Your task to perform on an android device: turn on translation in the chrome app Image 0: 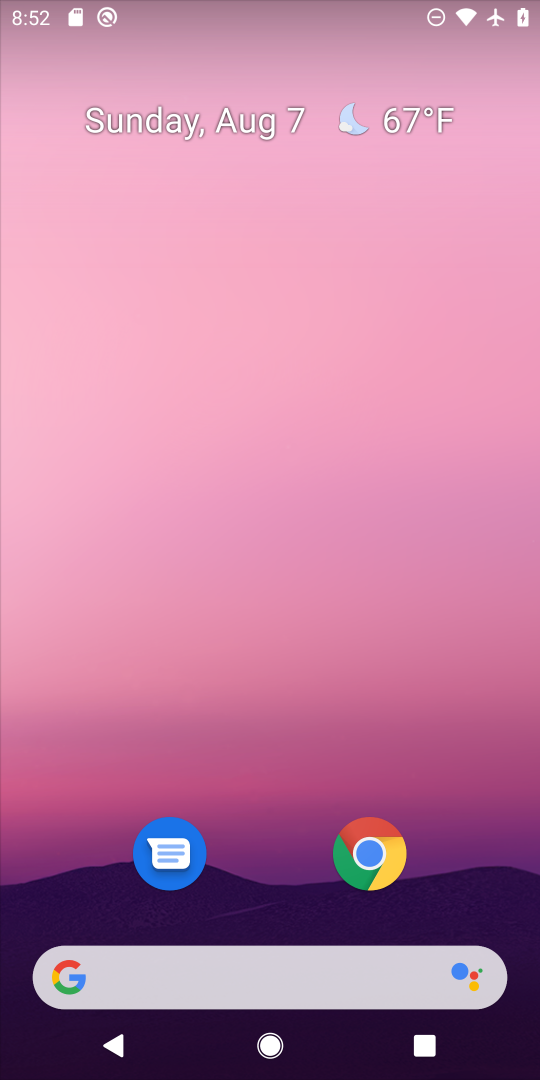
Step 0: drag from (243, 920) to (320, 49)
Your task to perform on an android device: turn on translation in the chrome app Image 1: 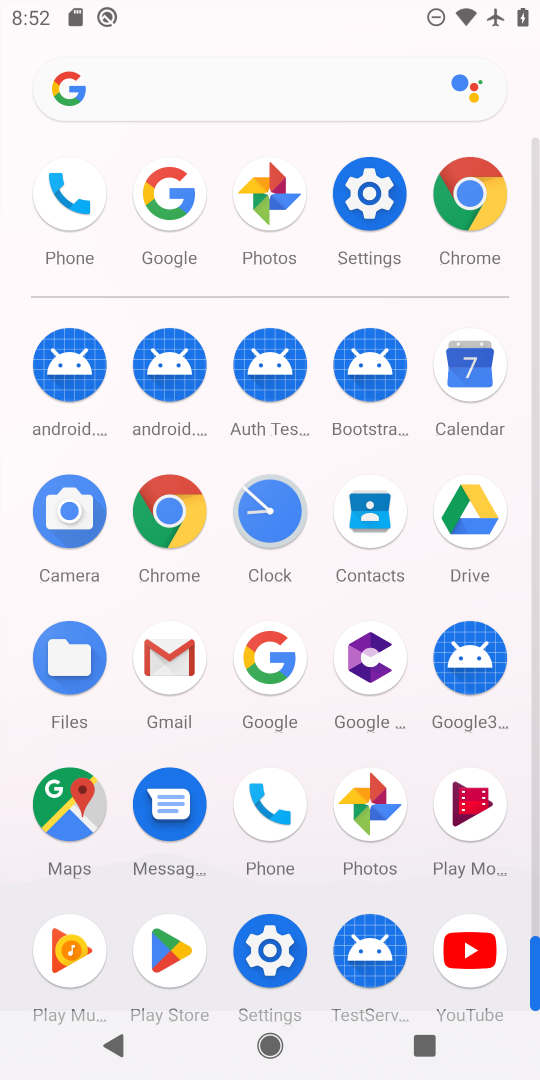
Step 1: click (472, 240)
Your task to perform on an android device: turn on translation in the chrome app Image 2: 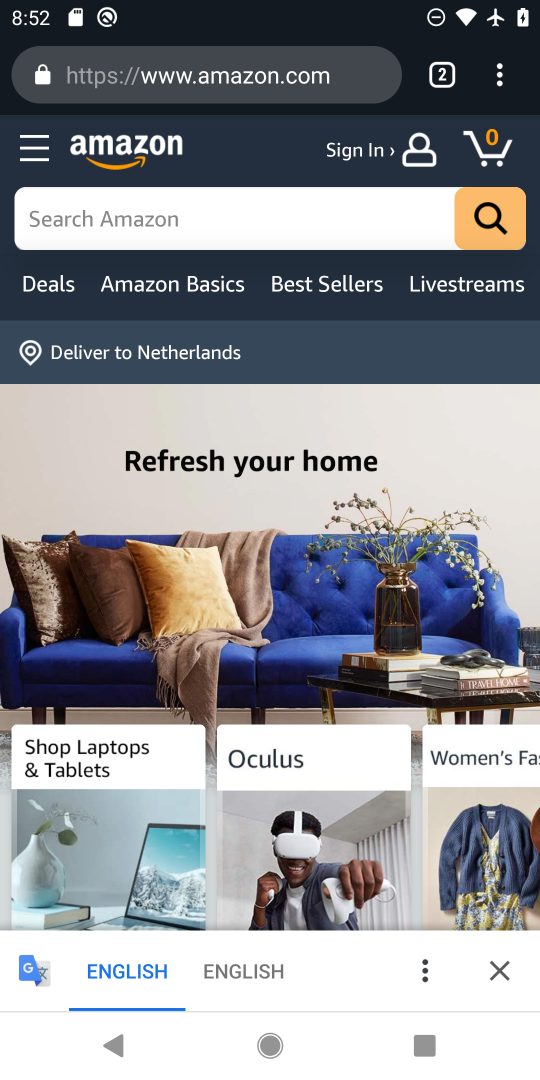
Step 2: task complete